Your task to perform on an android device: Show me recent news Image 0: 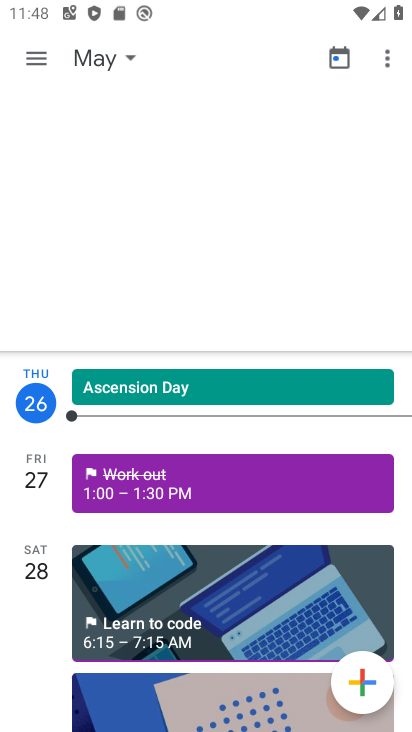
Step 0: press home button
Your task to perform on an android device: Show me recent news Image 1: 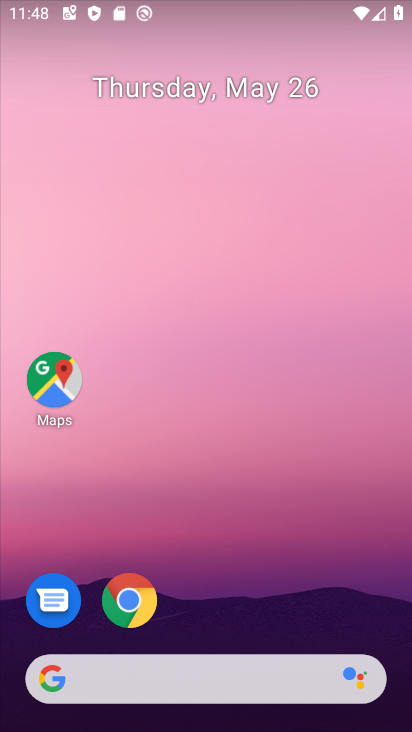
Step 1: click (241, 673)
Your task to perform on an android device: Show me recent news Image 2: 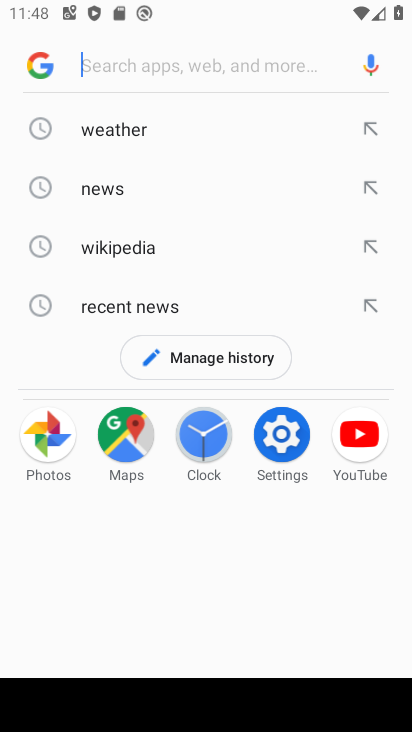
Step 2: click (72, 314)
Your task to perform on an android device: Show me recent news Image 3: 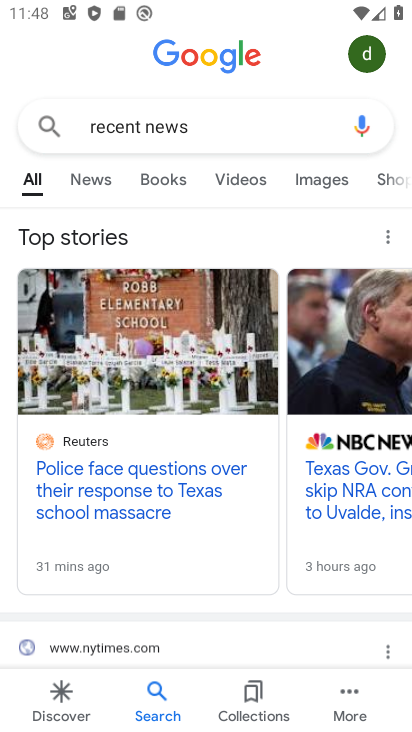
Step 3: task complete